Your task to perform on an android device: Go to Reddit.com Image 0: 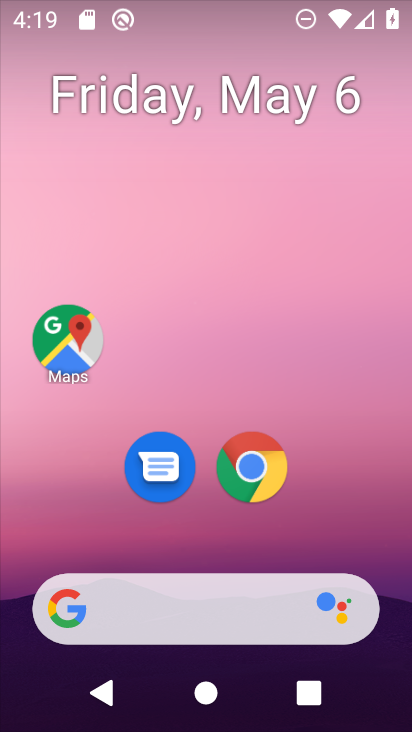
Step 0: click (251, 477)
Your task to perform on an android device: Go to Reddit.com Image 1: 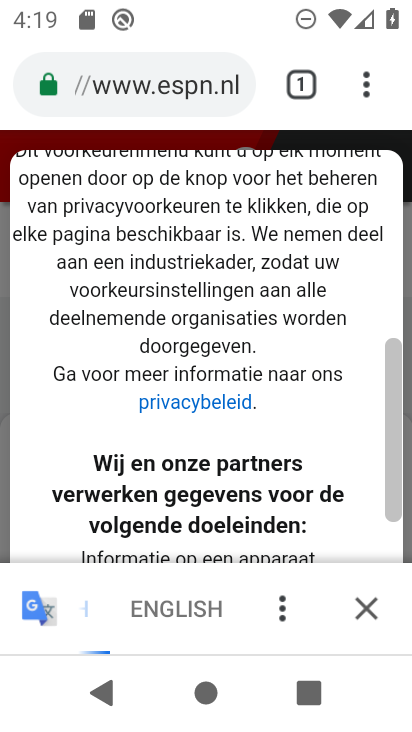
Step 1: click (193, 92)
Your task to perform on an android device: Go to Reddit.com Image 2: 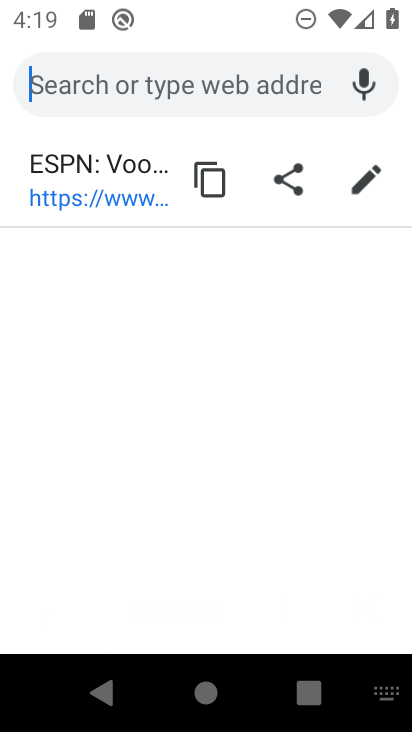
Step 2: type "www.reddit.com"
Your task to perform on an android device: Go to Reddit.com Image 3: 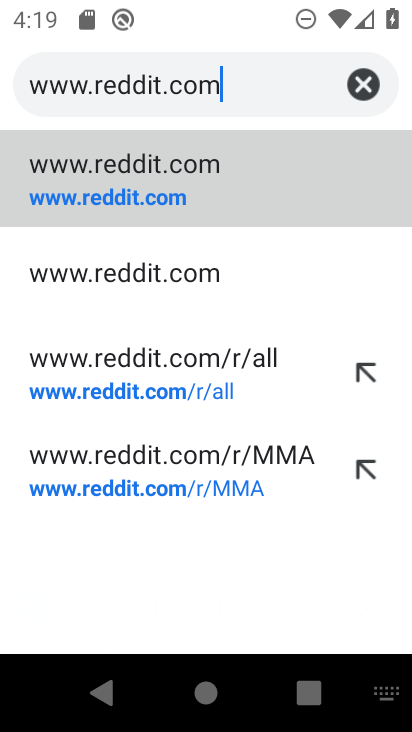
Step 3: click (82, 162)
Your task to perform on an android device: Go to Reddit.com Image 4: 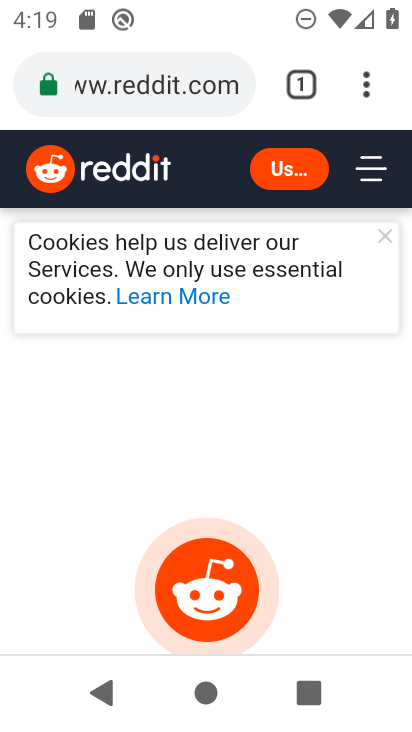
Step 4: task complete